Your task to perform on an android device: turn on sleep mode Image 0: 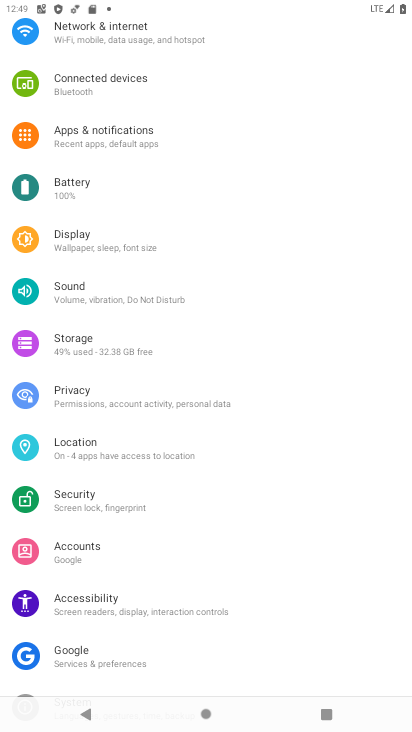
Step 0: click (80, 243)
Your task to perform on an android device: turn on sleep mode Image 1: 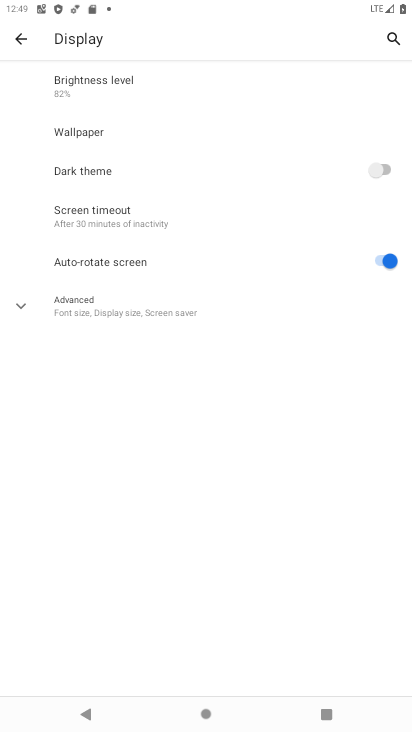
Step 1: click (18, 310)
Your task to perform on an android device: turn on sleep mode Image 2: 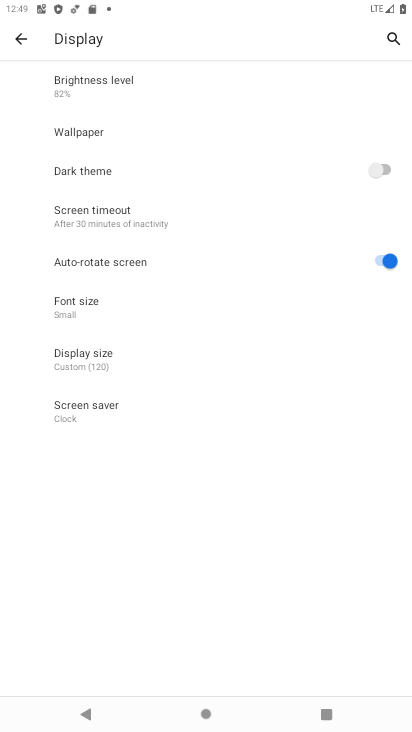
Step 2: task complete